Your task to perform on an android device: Do I have any events this weekend? Image 0: 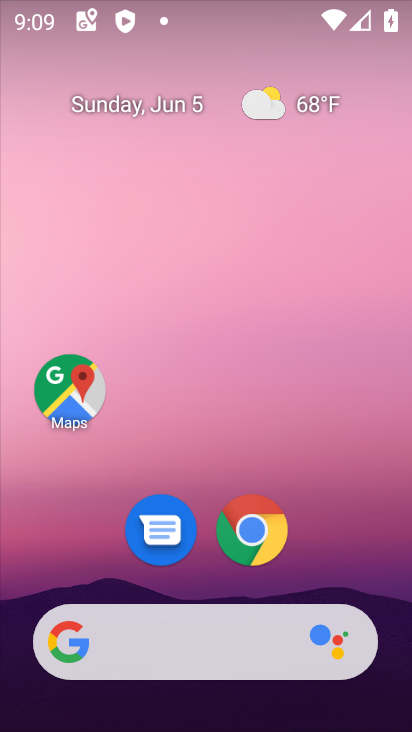
Step 0: drag from (378, 571) to (331, 81)
Your task to perform on an android device: Do I have any events this weekend? Image 1: 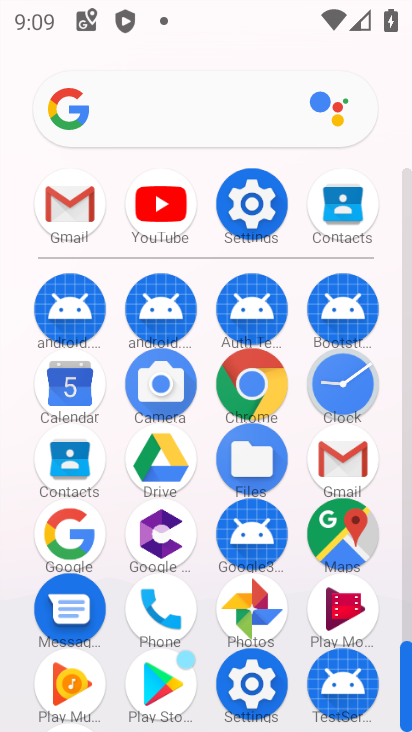
Step 1: click (73, 387)
Your task to perform on an android device: Do I have any events this weekend? Image 2: 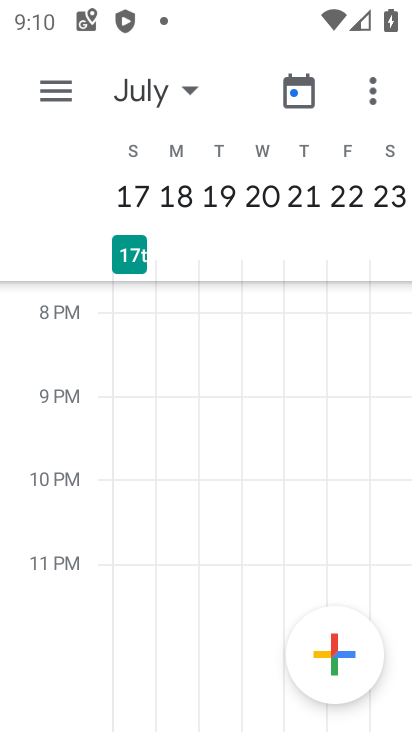
Step 2: click (167, 93)
Your task to perform on an android device: Do I have any events this weekend? Image 3: 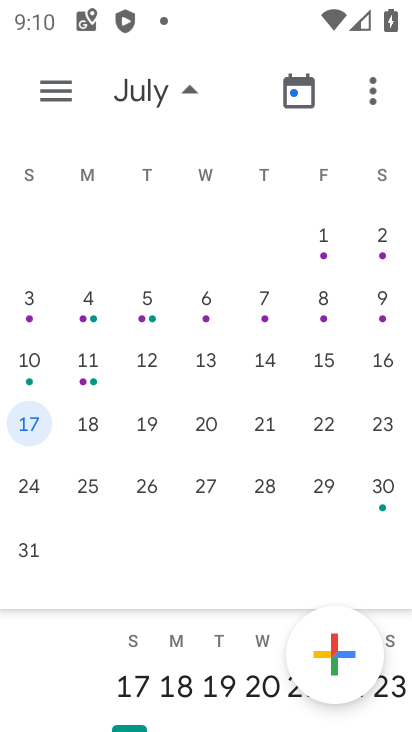
Step 3: drag from (25, 363) to (126, 368)
Your task to perform on an android device: Do I have any events this weekend? Image 4: 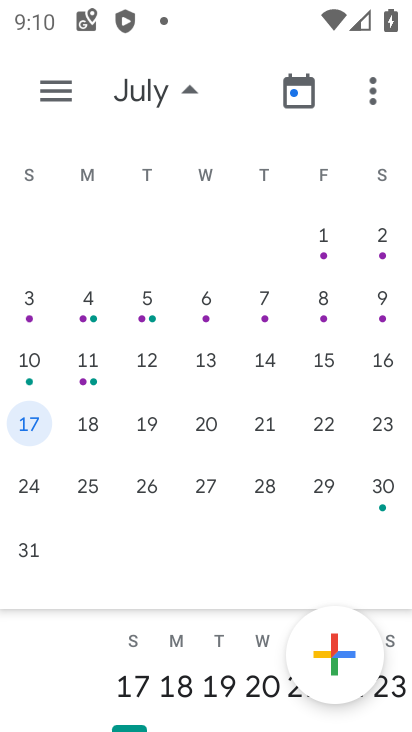
Step 4: drag from (144, 413) to (410, 422)
Your task to perform on an android device: Do I have any events this weekend? Image 5: 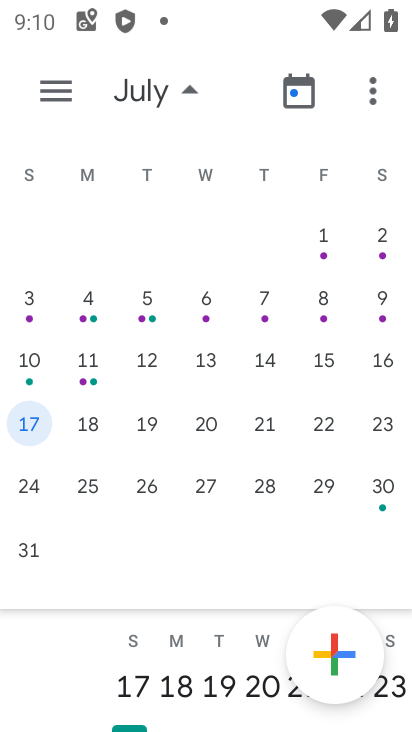
Step 5: drag from (81, 426) to (322, 444)
Your task to perform on an android device: Do I have any events this weekend? Image 6: 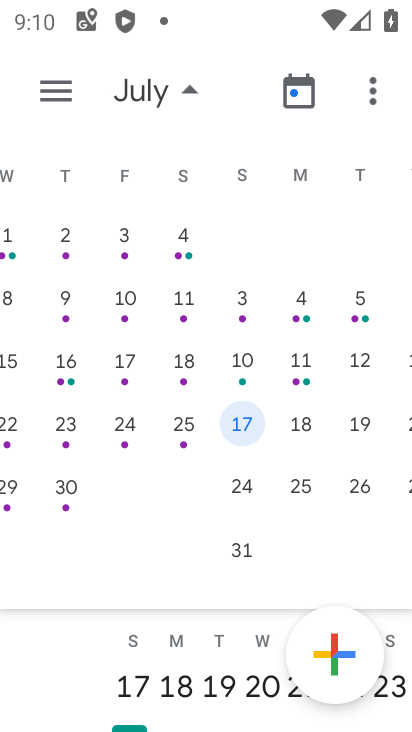
Step 6: click (322, 444)
Your task to perform on an android device: Do I have any events this weekend? Image 7: 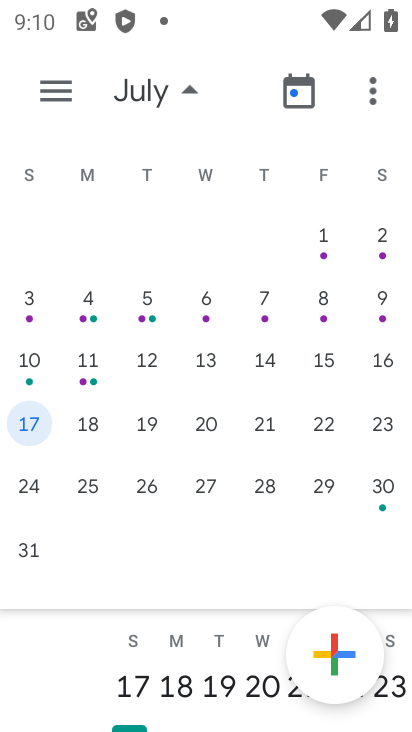
Step 7: drag from (78, 489) to (377, 460)
Your task to perform on an android device: Do I have any events this weekend? Image 8: 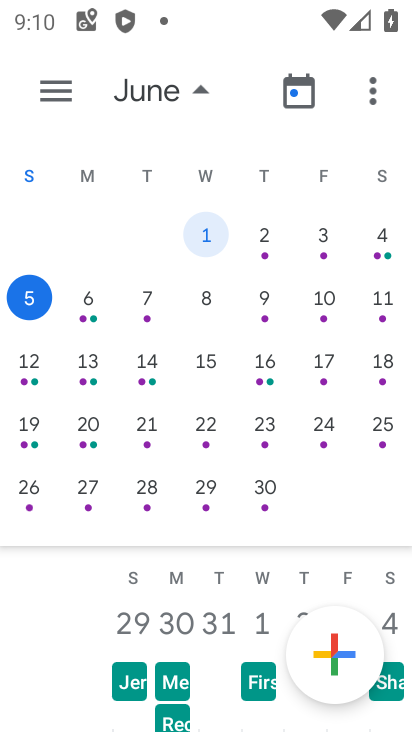
Step 8: click (32, 305)
Your task to perform on an android device: Do I have any events this weekend? Image 9: 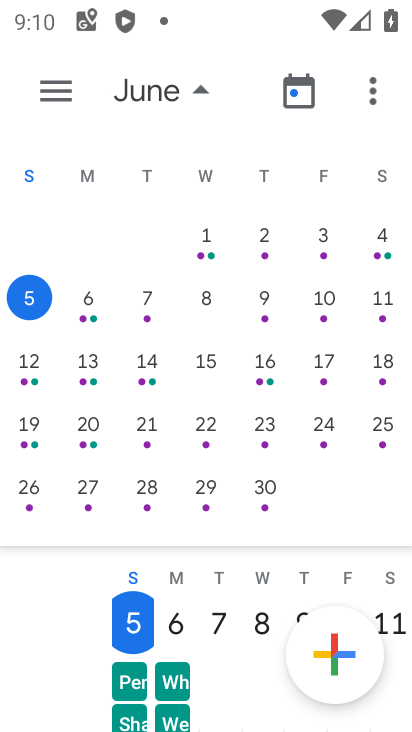
Step 9: task complete